Your task to perform on an android device: Go to ESPN.com Image 0: 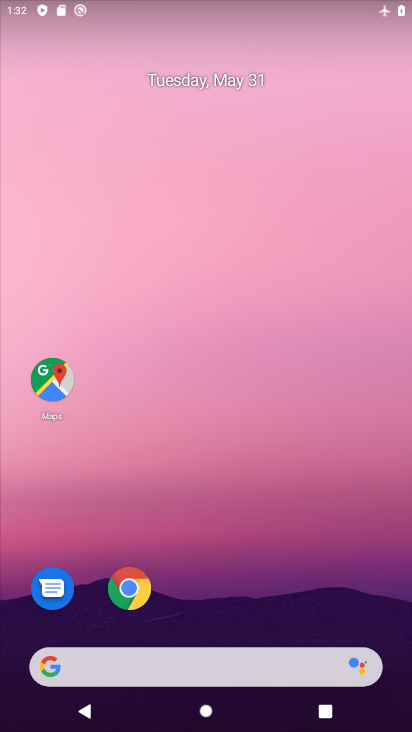
Step 0: drag from (375, 605) to (361, 202)
Your task to perform on an android device: Go to ESPN.com Image 1: 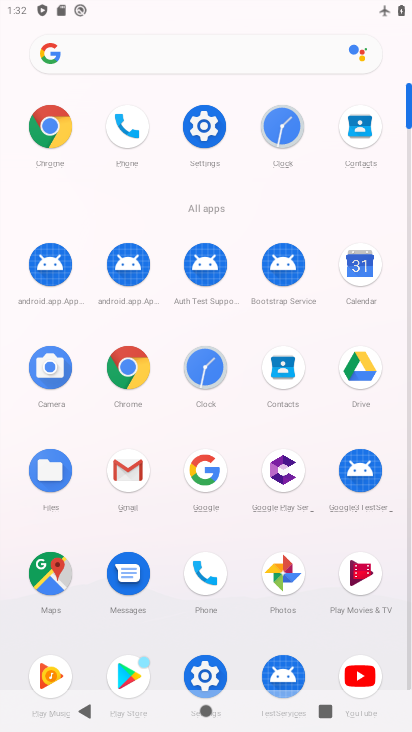
Step 1: click (135, 376)
Your task to perform on an android device: Go to ESPN.com Image 2: 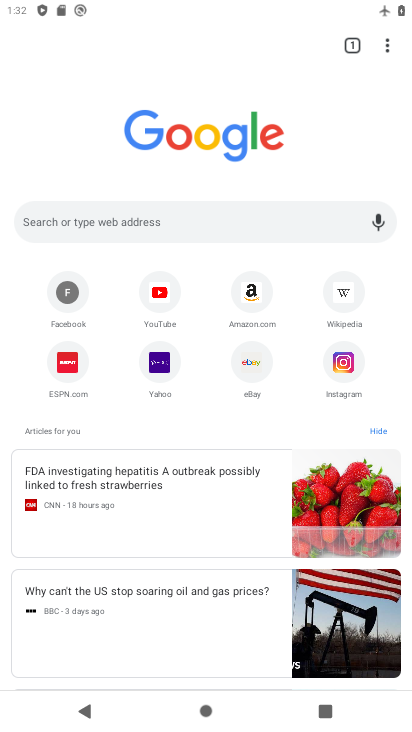
Step 2: click (73, 368)
Your task to perform on an android device: Go to ESPN.com Image 3: 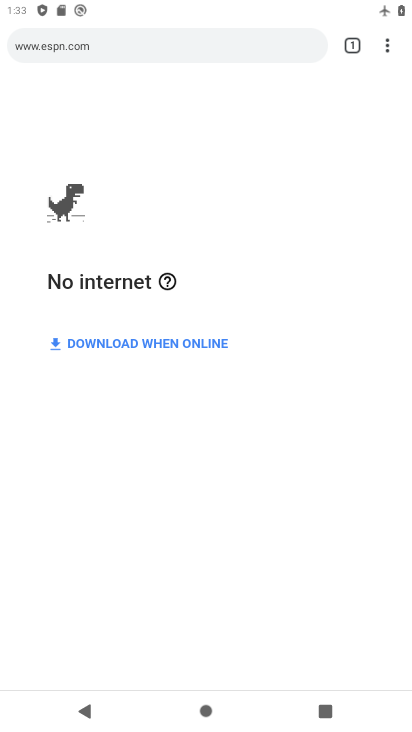
Step 3: task complete